Your task to perform on an android device: turn off wifi Image 0: 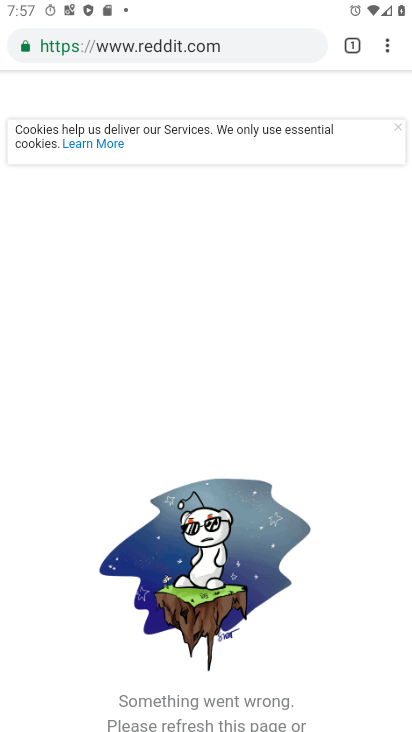
Step 0: press home button
Your task to perform on an android device: turn off wifi Image 1: 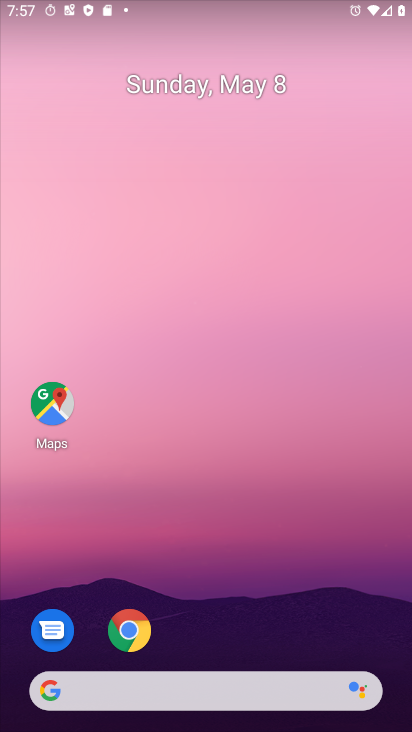
Step 1: drag from (216, 658) to (128, 39)
Your task to perform on an android device: turn off wifi Image 2: 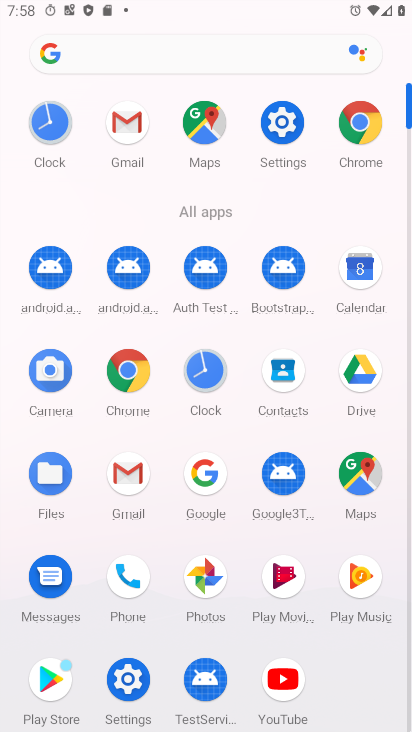
Step 2: click (280, 130)
Your task to perform on an android device: turn off wifi Image 3: 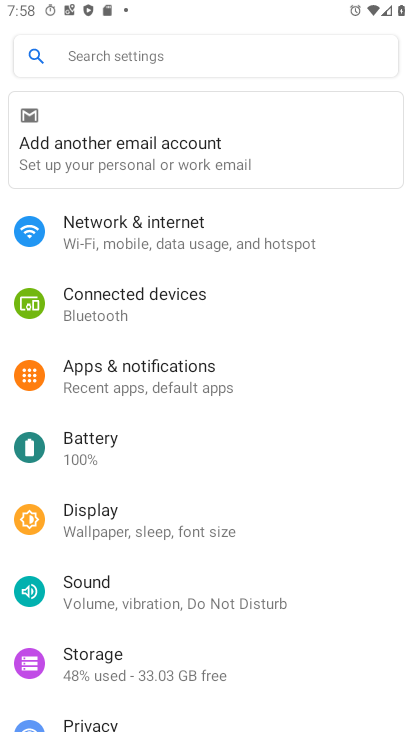
Step 3: click (110, 220)
Your task to perform on an android device: turn off wifi Image 4: 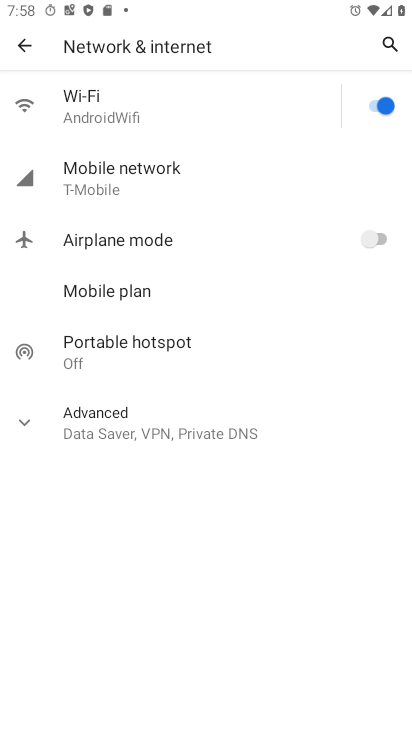
Step 4: click (367, 100)
Your task to perform on an android device: turn off wifi Image 5: 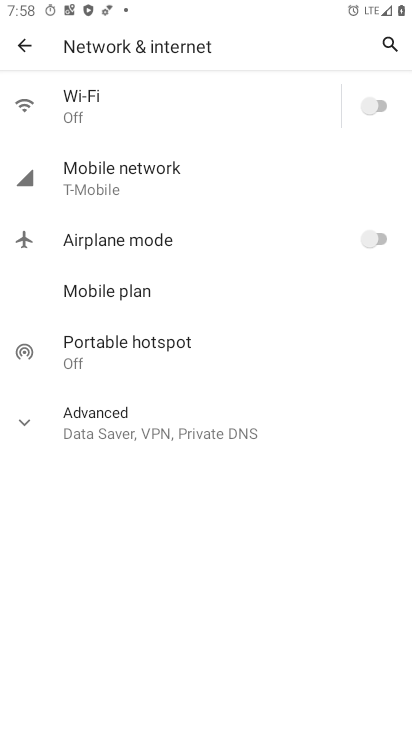
Step 5: task complete